Your task to perform on an android device: Is it going to rain tomorrow? Image 0: 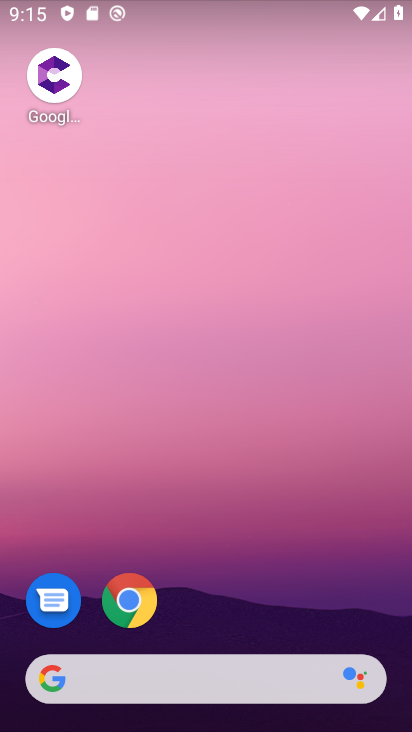
Step 0: click (236, 689)
Your task to perform on an android device: Is it going to rain tomorrow? Image 1: 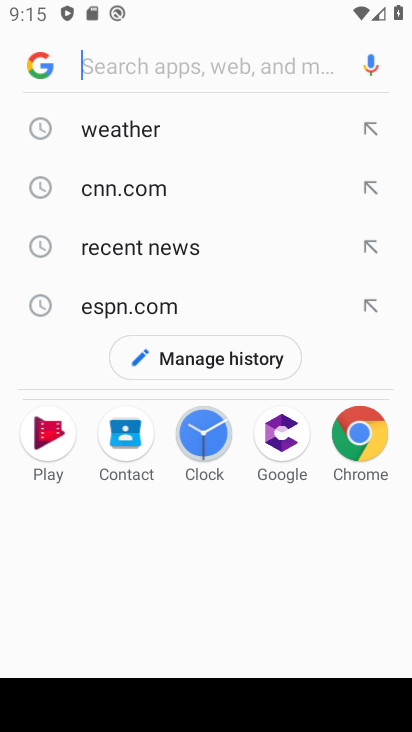
Step 1: click (38, 54)
Your task to perform on an android device: Is it going to rain tomorrow? Image 2: 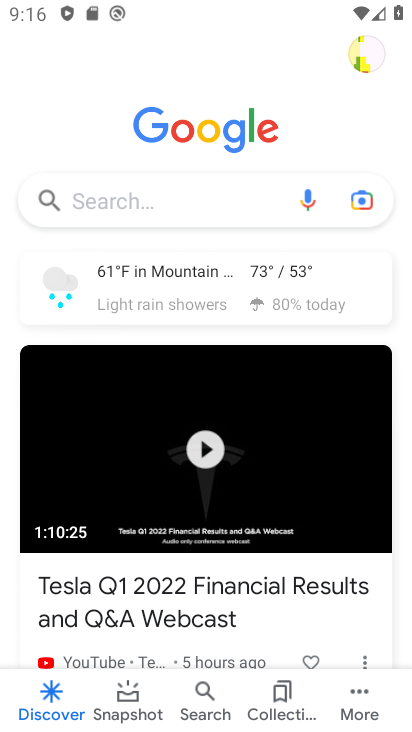
Step 2: click (140, 298)
Your task to perform on an android device: Is it going to rain tomorrow? Image 3: 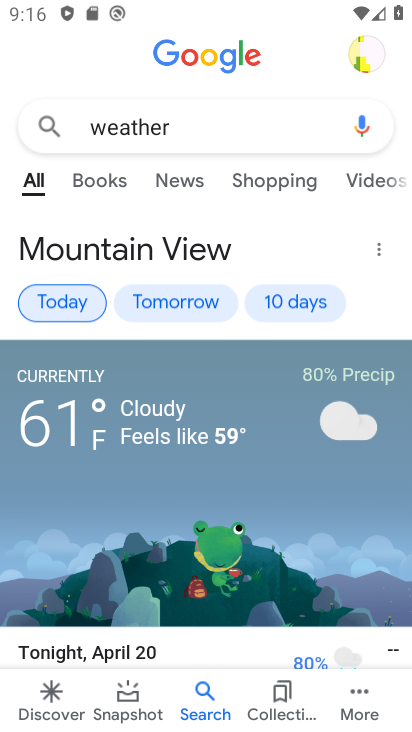
Step 3: click (205, 308)
Your task to perform on an android device: Is it going to rain tomorrow? Image 4: 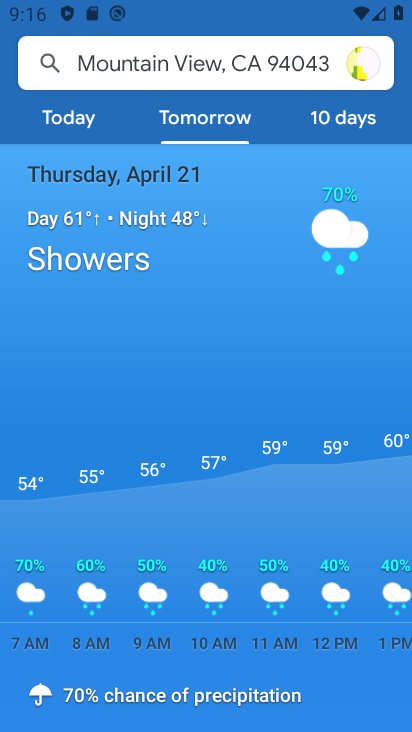
Step 4: task complete